Your task to perform on an android device: open a new tab in the chrome app Image 0: 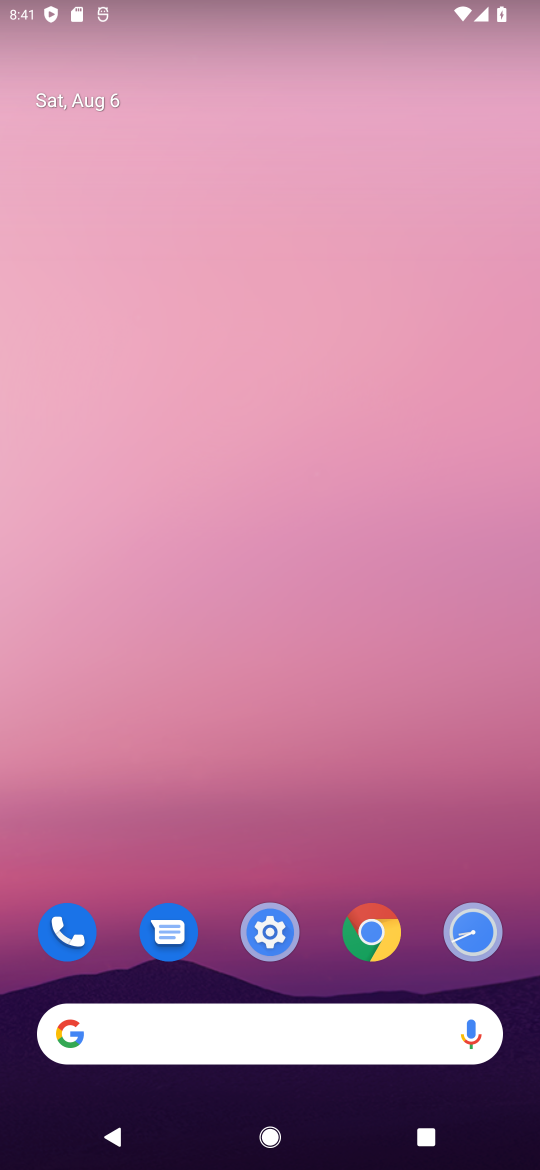
Step 0: click (373, 932)
Your task to perform on an android device: open a new tab in the chrome app Image 1: 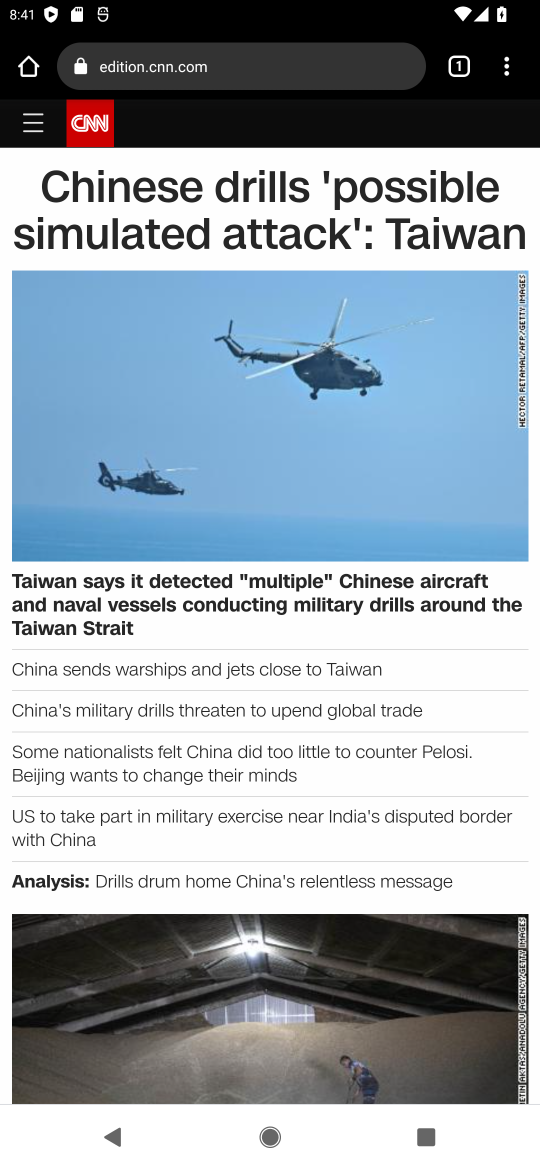
Step 1: click (510, 68)
Your task to perform on an android device: open a new tab in the chrome app Image 2: 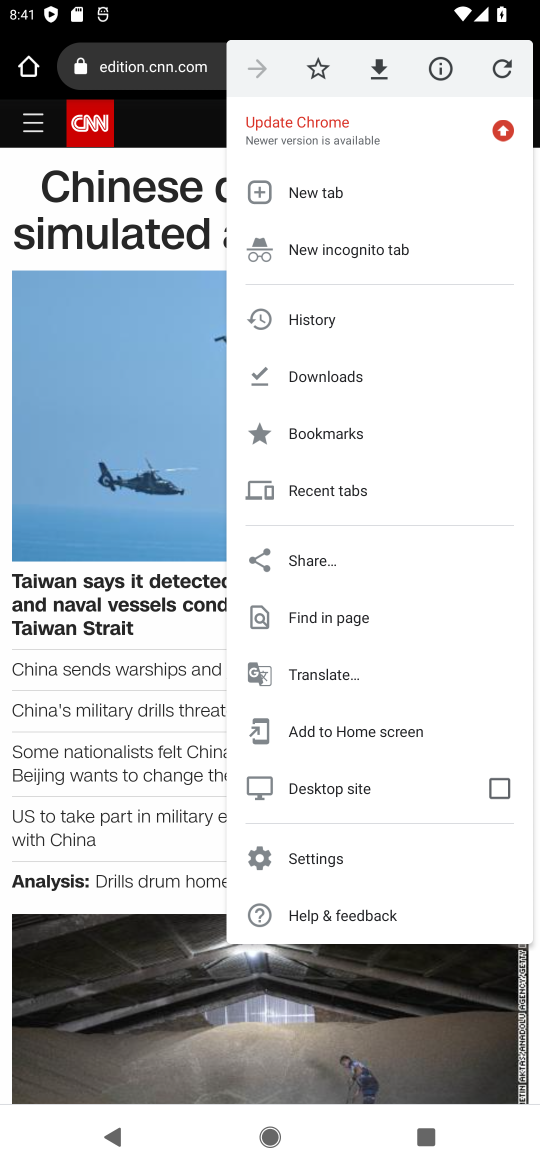
Step 2: click (326, 191)
Your task to perform on an android device: open a new tab in the chrome app Image 3: 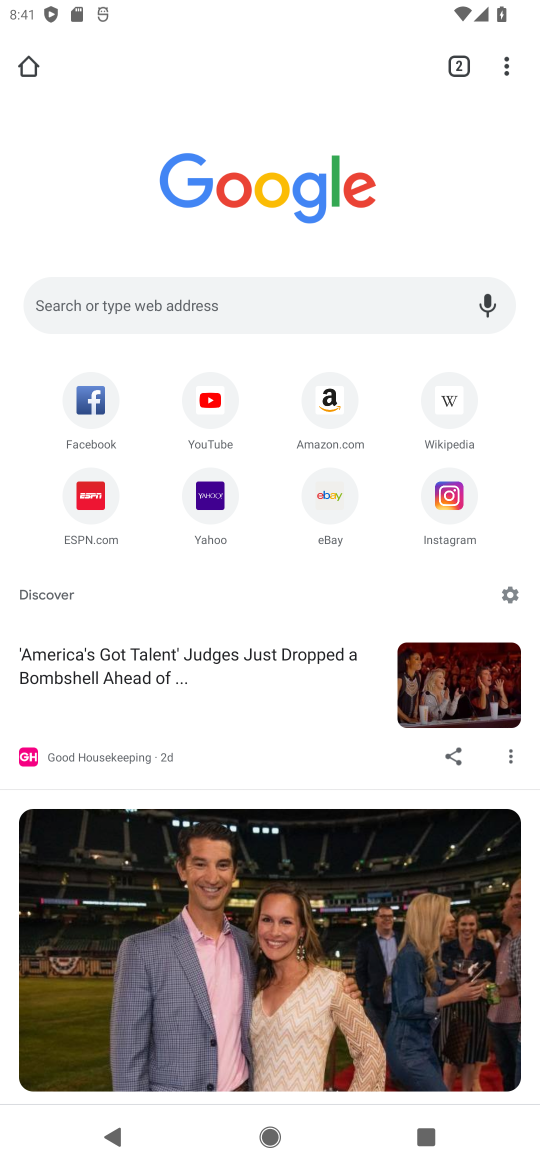
Step 3: task complete